Your task to perform on an android device: toggle sleep mode Image 0: 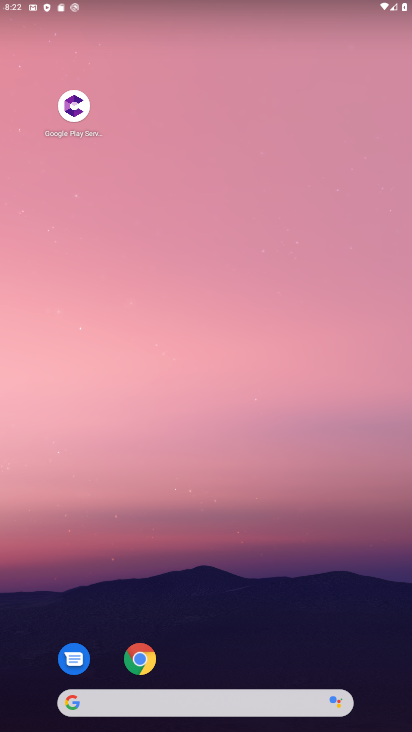
Step 0: drag from (232, 685) to (240, 151)
Your task to perform on an android device: toggle sleep mode Image 1: 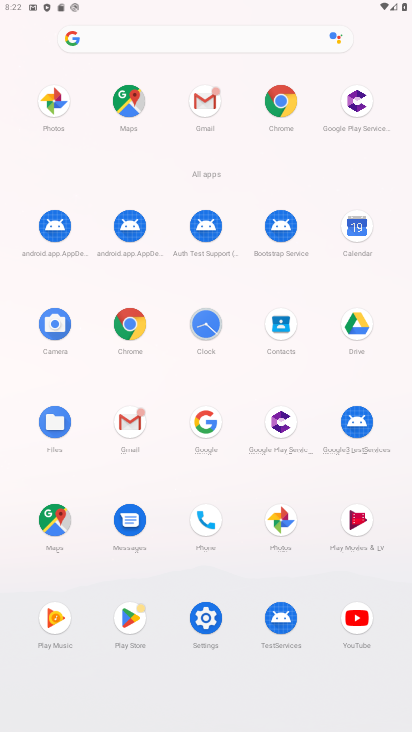
Step 1: click (208, 621)
Your task to perform on an android device: toggle sleep mode Image 2: 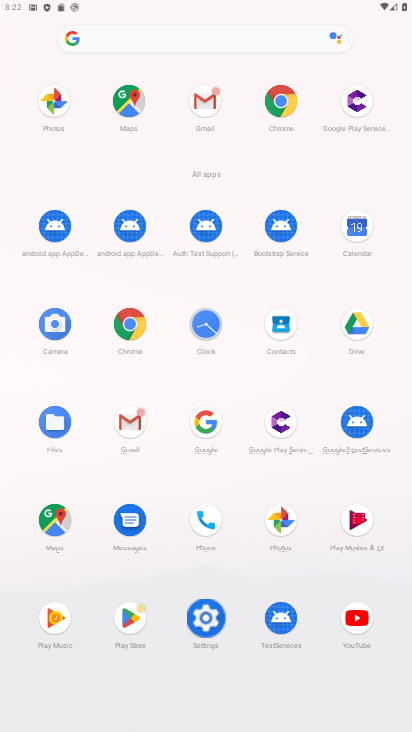
Step 2: click (208, 621)
Your task to perform on an android device: toggle sleep mode Image 3: 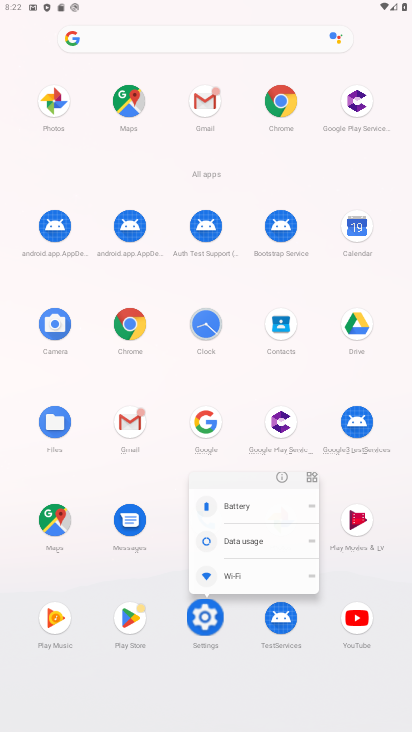
Step 3: click (207, 621)
Your task to perform on an android device: toggle sleep mode Image 4: 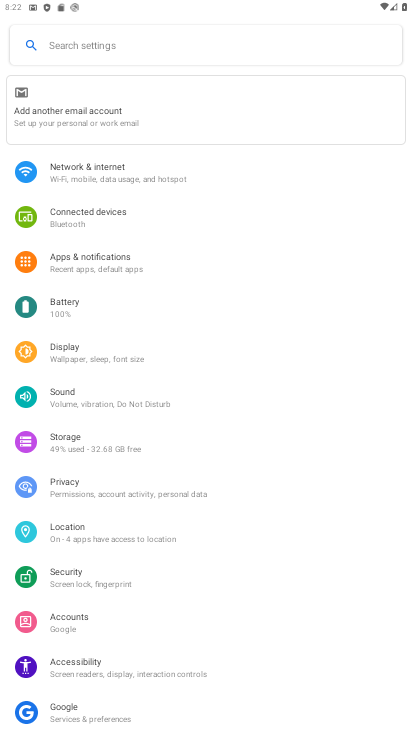
Step 4: click (69, 357)
Your task to perform on an android device: toggle sleep mode Image 5: 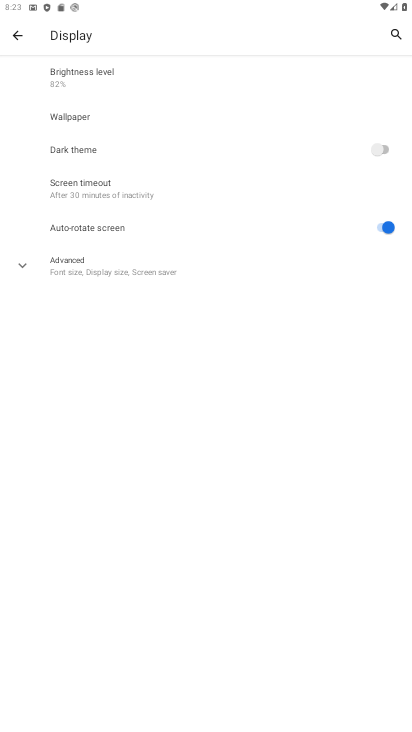
Step 5: click (90, 270)
Your task to perform on an android device: toggle sleep mode Image 6: 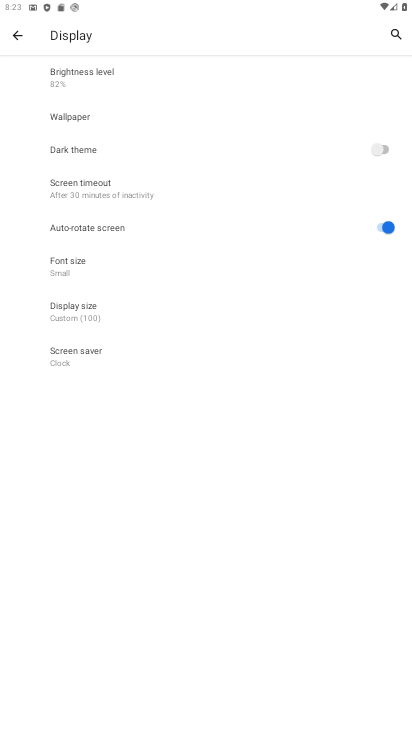
Step 6: click (66, 273)
Your task to perform on an android device: toggle sleep mode Image 7: 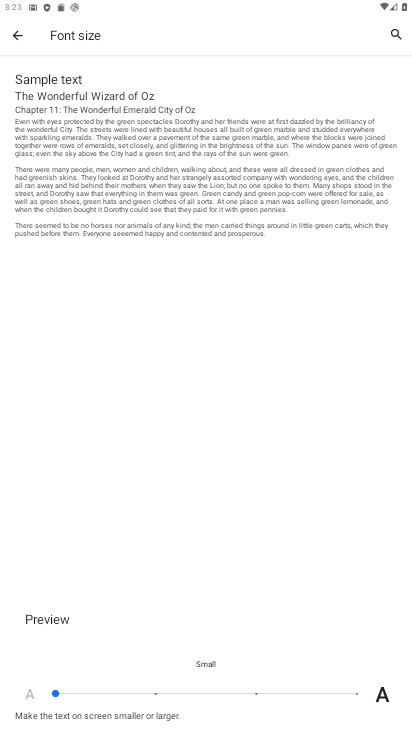
Step 7: click (353, 692)
Your task to perform on an android device: toggle sleep mode Image 8: 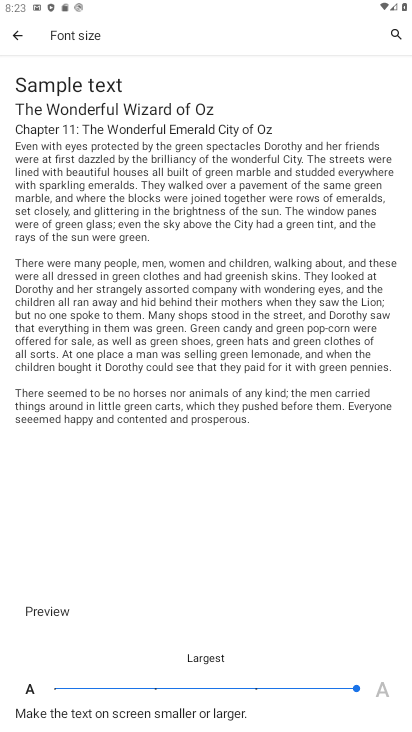
Step 8: click (15, 36)
Your task to perform on an android device: toggle sleep mode Image 9: 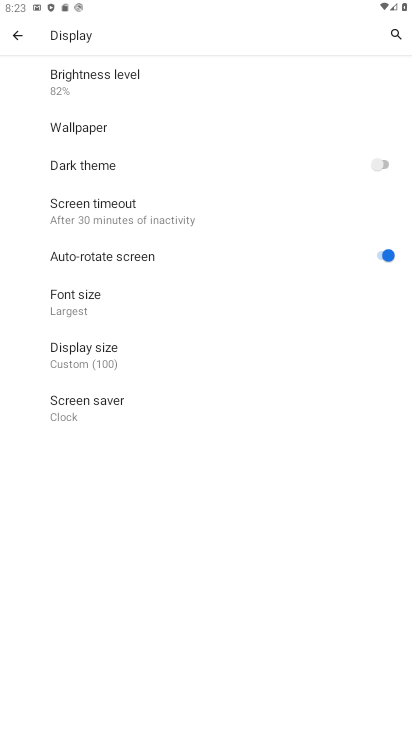
Step 9: click (103, 208)
Your task to perform on an android device: toggle sleep mode Image 10: 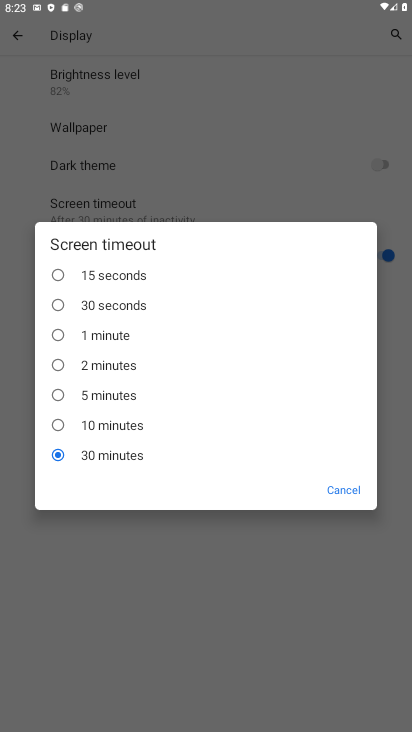
Step 10: click (59, 308)
Your task to perform on an android device: toggle sleep mode Image 11: 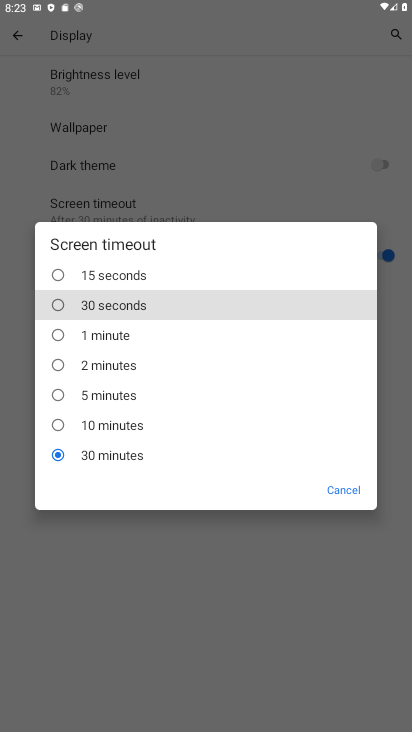
Step 11: click (60, 304)
Your task to perform on an android device: toggle sleep mode Image 12: 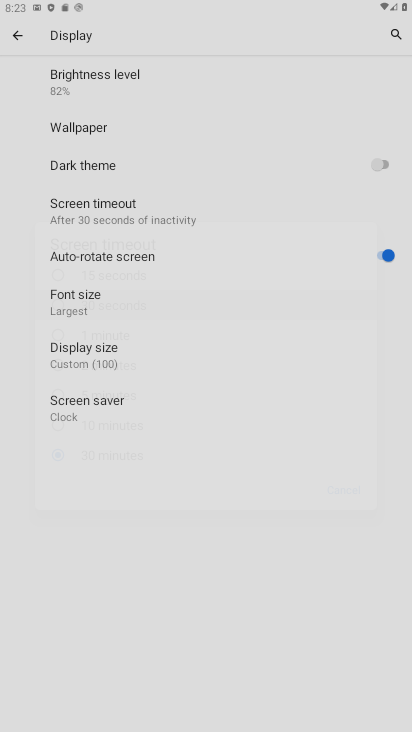
Step 12: click (61, 303)
Your task to perform on an android device: toggle sleep mode Image 13: 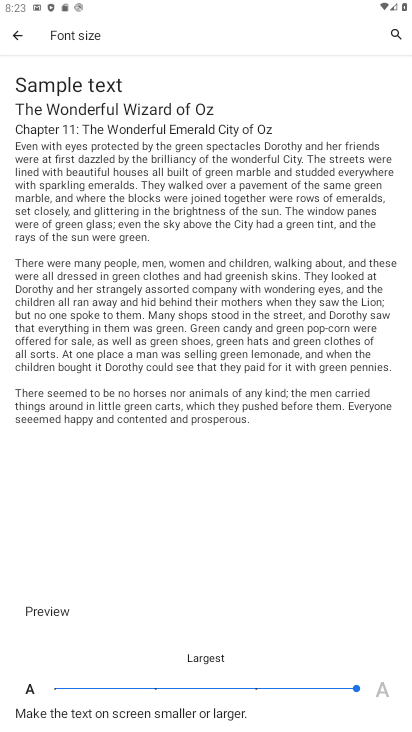
Step 13: task complete